Your task to perform on an android device: Open the calendar app, open the side menu, and click the "Day" option Image 0: 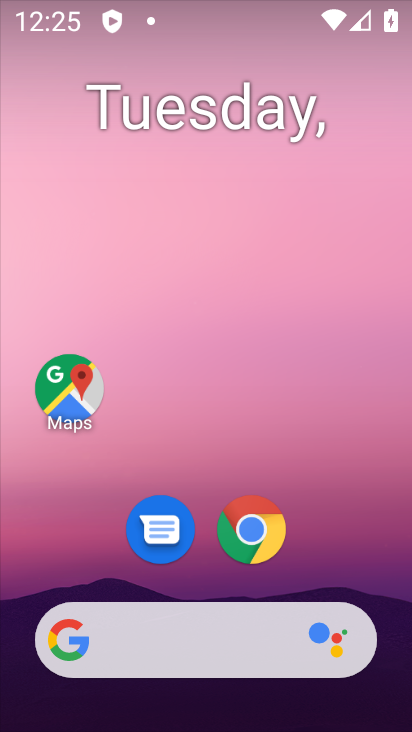
Step 0: drag from (347, 455) to (280, 0)
Your task to perform on an android device: Open the calendar app, open the side menu, and click the "Day" option Image 1: 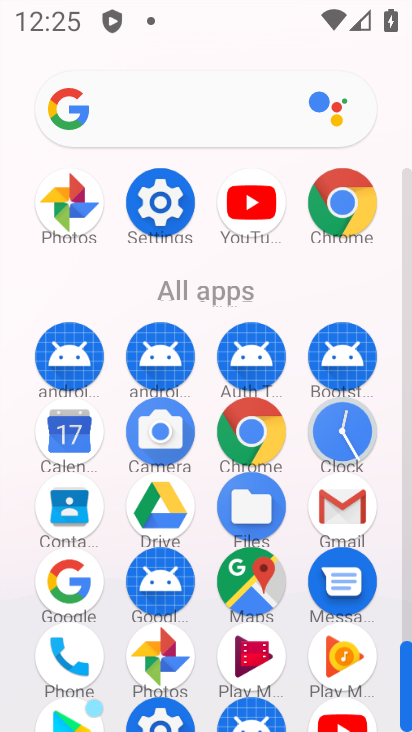
Step 1: click (62, 440)
Your task to perform on an android device: Open the calendar app, open the side menu, and click the "Day" option Image 2: 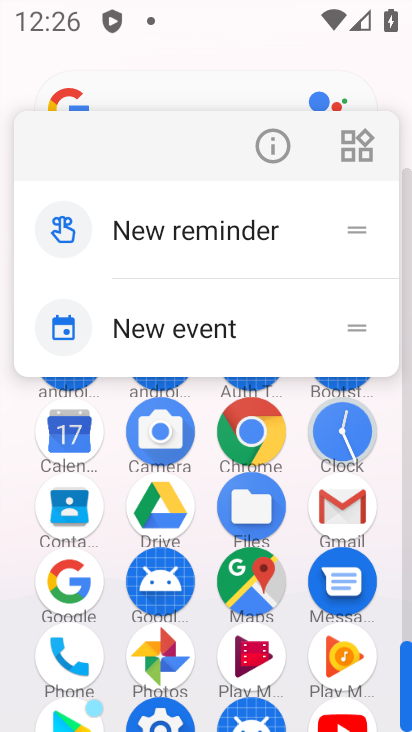
Step 2: click (64, 440)
Your task to perform on an android device: Open the calendar app, open the side menu, and click the "Day" option Image 3: 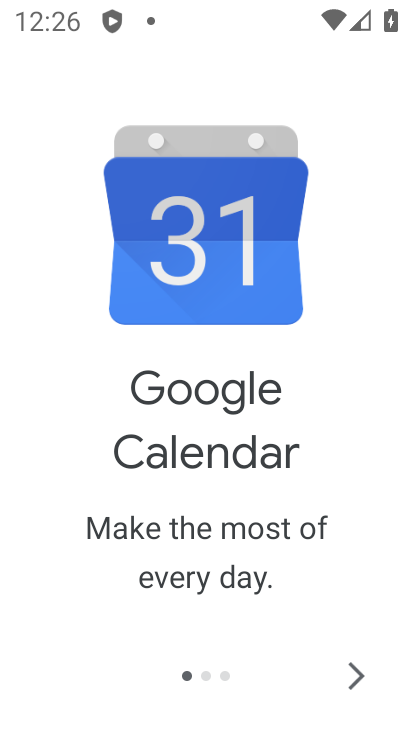
Step 3: click (353, 663)
Your task to perform on an android device: Open the calendar app, open the side menu, and click the "Day" option Image 4: 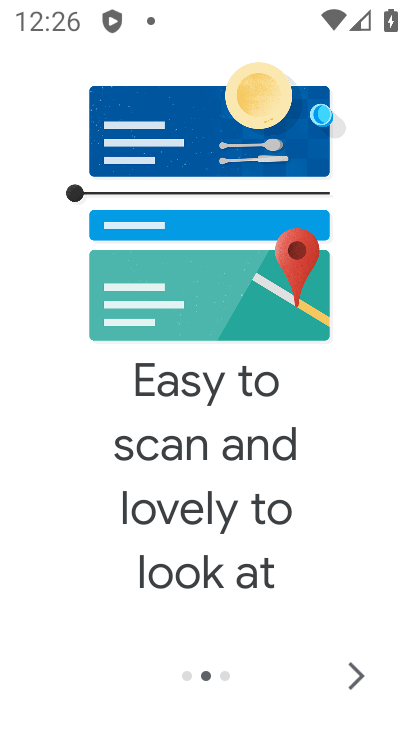
Step 4: click (353, 663)
Your task to perform on an android device: Open the calendar app, open the side menu, and click the "Day" option Image 5: 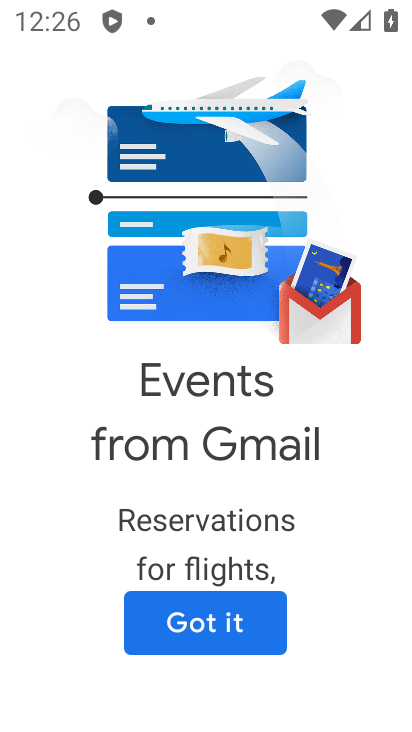
Step 5: click (215, 644)
Your task to perform on an android device: Open the calendar app, open the side menu, and click the "Day" option Image 6: 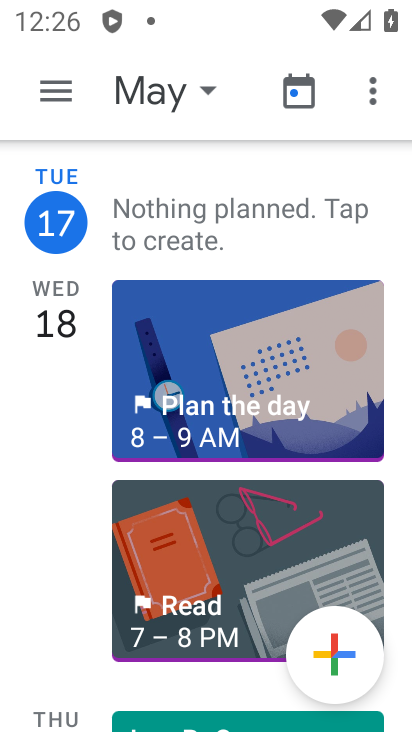
Step 6: click (52, 88)
Your task to perform on an android device: Open the calendar app, open the side menu, and click the "Day" option Image 7: 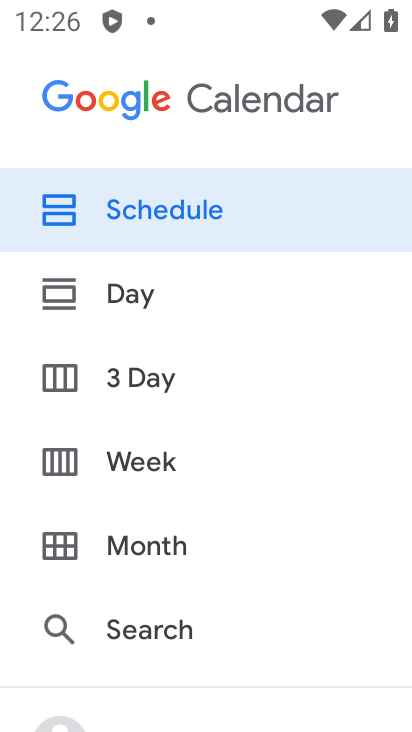
Step 7: click (121, 290)
Your task to perform on an android device: Open the calendar app, open the side menu, and click the "Day" option Image 8: 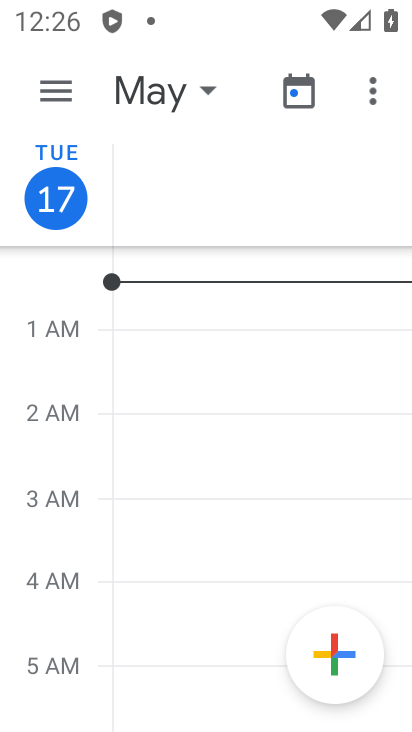
Step 8: task complete